Your task to perform on an android device: Go to privacy settings Image 0: 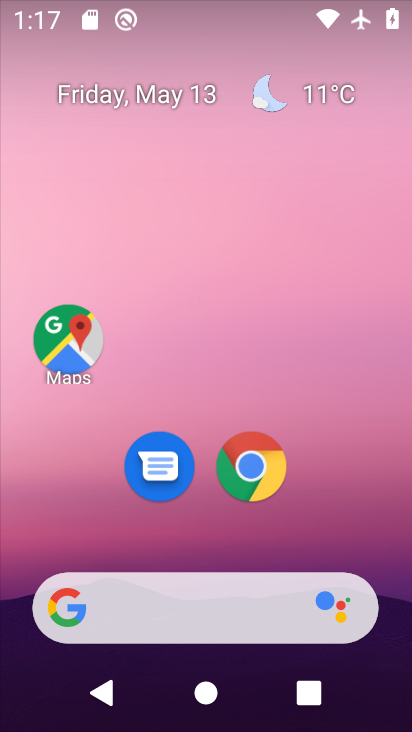
Step 0: click (254, 471)
Your task to perform on an android device: Go to privacy settings Image 1: 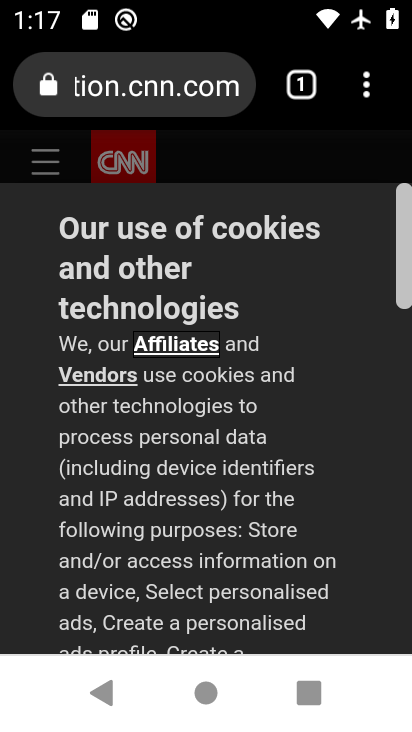
Step 1: click (362, 89)
Your task to perform on an android device: Go to privacy settings Image 2: 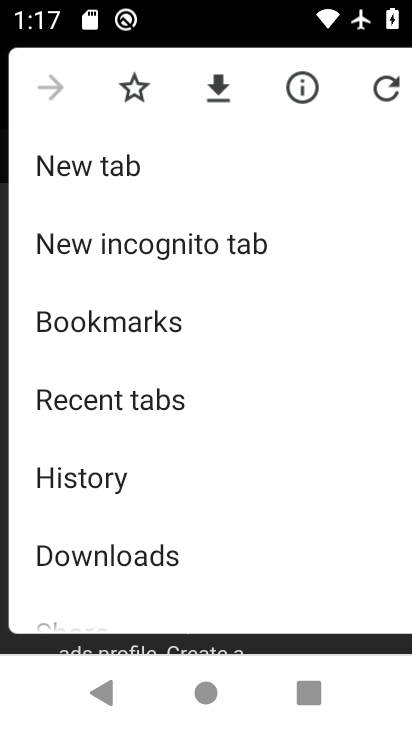
Step 2: drag from (137, 532) to (178, 298)
Your task to perform on an android device: Go to privacy settings Image 3: 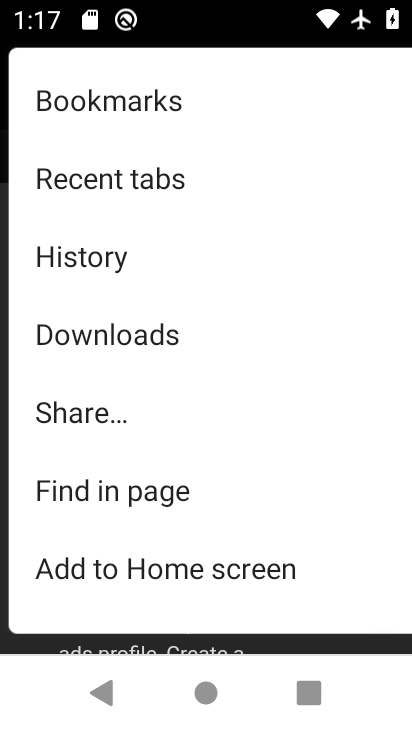
Step 3: drag from (127, 514) to (185, 276)
Your task to perform on an android device: Go to privacy settings Image 4: 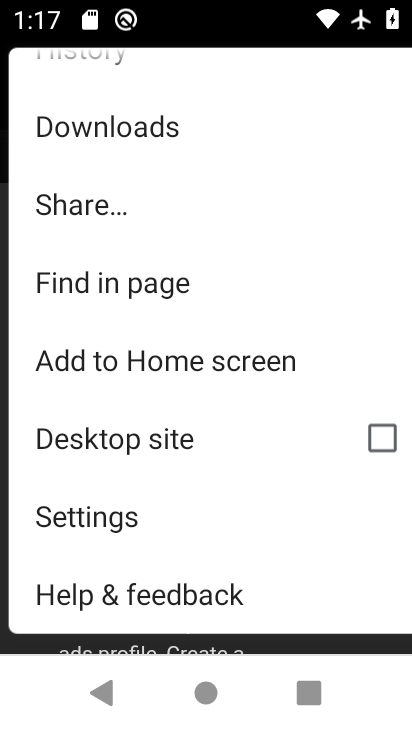
Step 4: click (147, 518)
Your task to perform on an android device: Go to privacy settings Image 5: 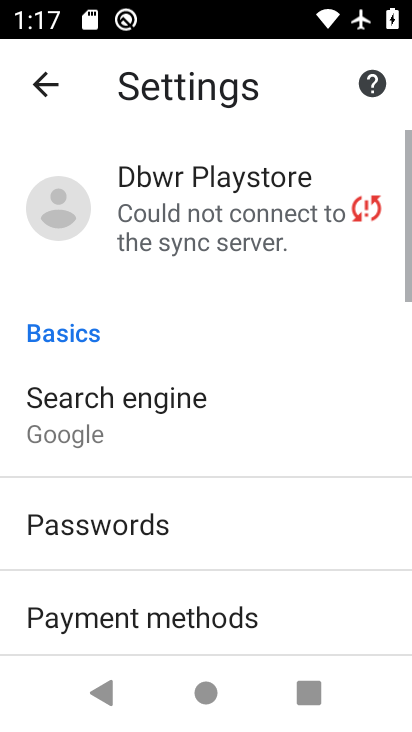
Step 5: drag from (181, 565) to (228, 250)
Your task to perform on an android device: Go to privacy settings Image 6: 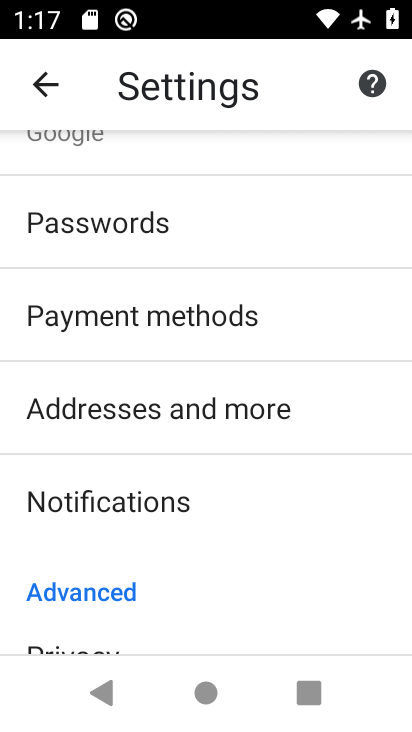
Step 6: drag from (240, 522) to (253, 346)
Your task to perform on an android device: Go to privacy settings Image 7: 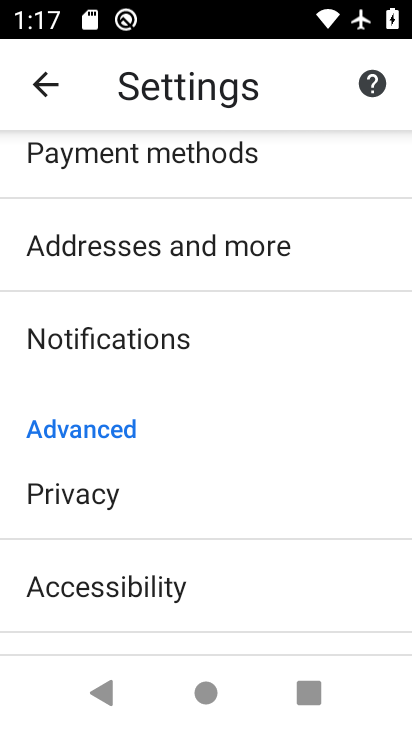
Step 7: click (177, 479)
Your task to perform on an android device: Go to privacy settings Image 8: 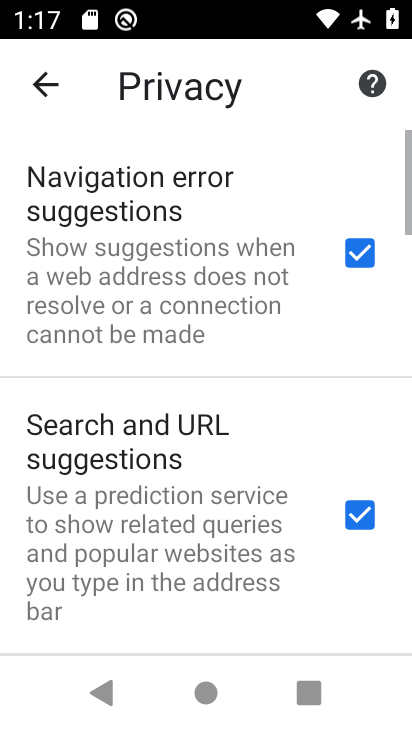
Step 8: task complete